Your task to perform on an android device: Open Youtube and go to the subscriptions tab Image 0: 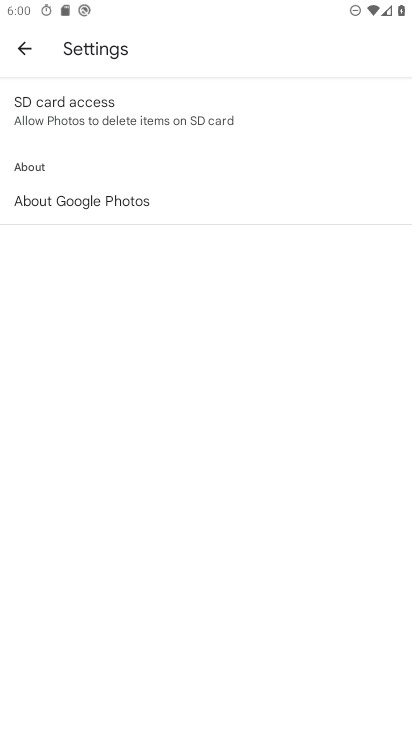
Step 0: press home button
Your task to perform on an android device: Open Youtube and go to the subscriptions tab Image 1: 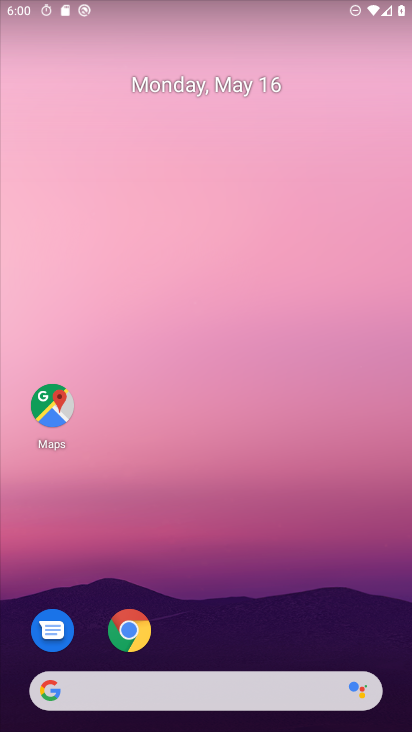
Step 1: drag from (289, 622) to (278, 33)
Your task to perform on an android device: Open Youtube and go to the subscriptions tab Image 2: 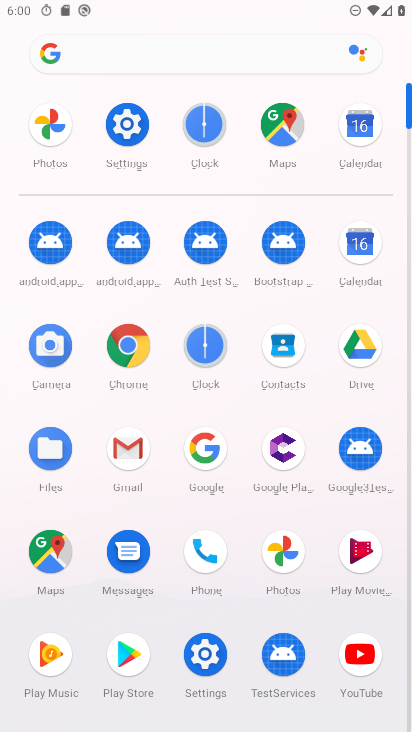
Step 2: click (353, 665)
Your task to perform on an android device: Open Youtube and go to the subscriptions tab Image 3: 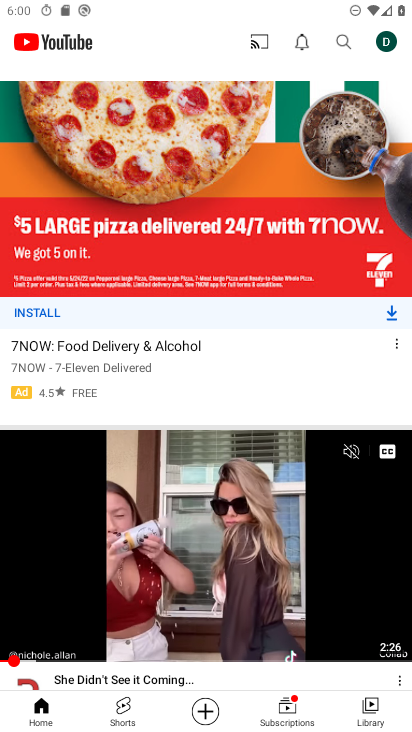
Step 3: click (300, 718)
Your task to perform on an android device: Open Youtube and go to the subscriptions tab Image 4: 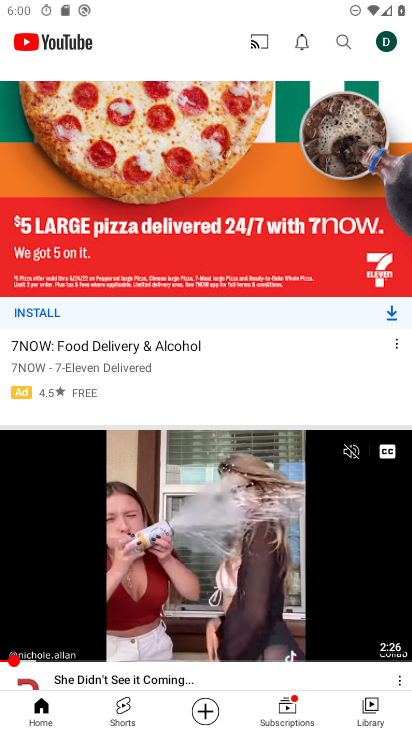
Step 4: click (288, 707)
Your task to perform on an android device: Open Youtube and go to the subscriptions tab Image 5: 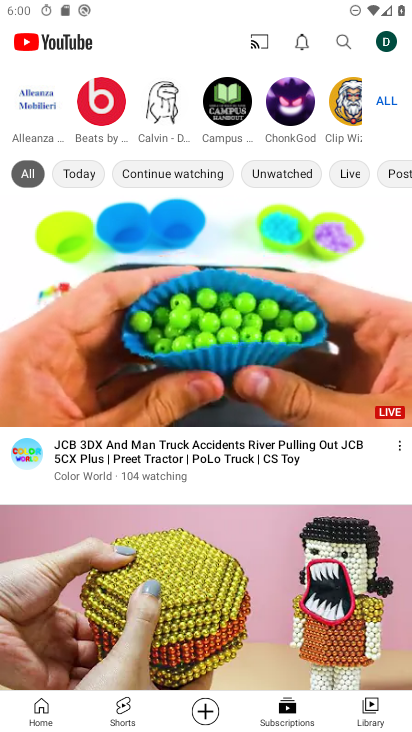
Step 5: task complete